Your task to perform on an android device: toggle priority inbox in the gmail app Image 0: 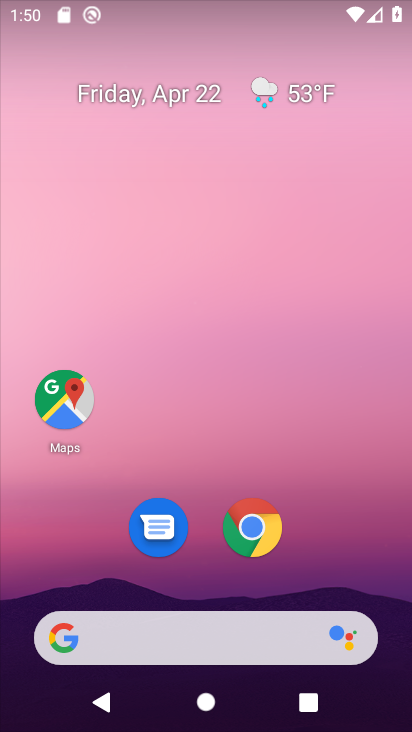
Step 0: drag from (346, 582) to (344, 11)
Your task to perform on an android device: toggle priority inbox in the gmail app Image 1: 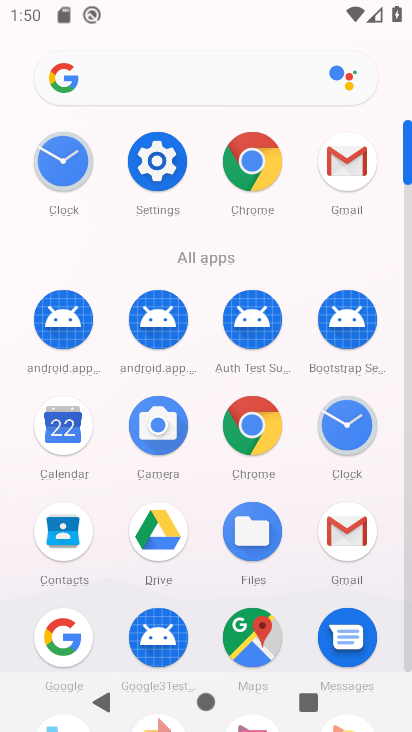
Step 1: click (345, 532)
Your task to perform on an android device: toggle priority inbox in the gmail app Image 2: 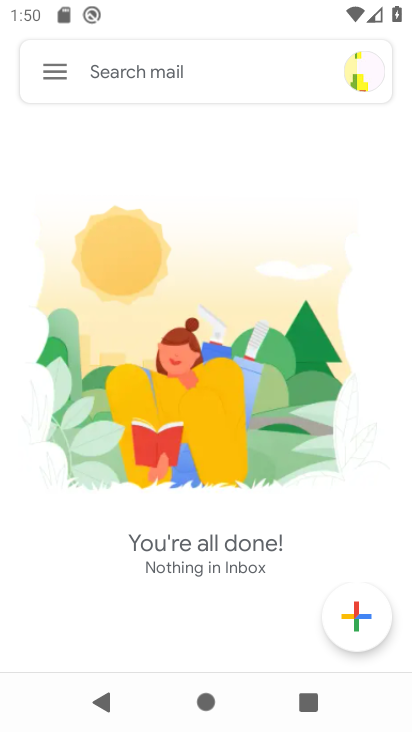
Step 2: click (32, 78)
Your task to perform on an android device: toggle priority inbox in the gmail app Image 3: 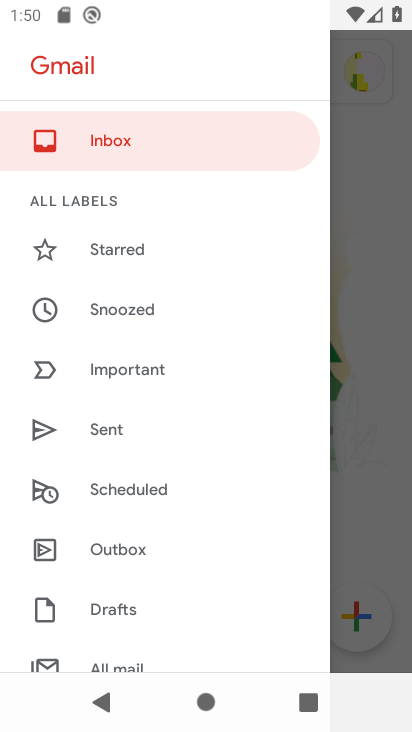
Step 3: drag from (102, 596) to (133, 190)
Your task to perform on an android device: toggle priority inbox in the gmail app Image 4: 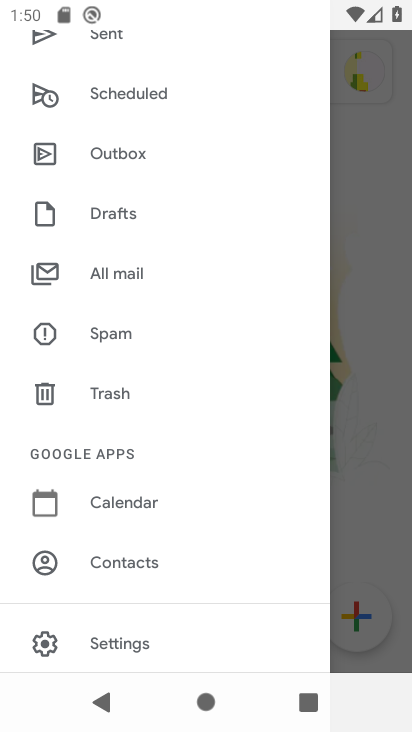
Step 4: click (129, 639)
Your task to perform on an android device: toggle priority inbox in the gmail app Image 5: 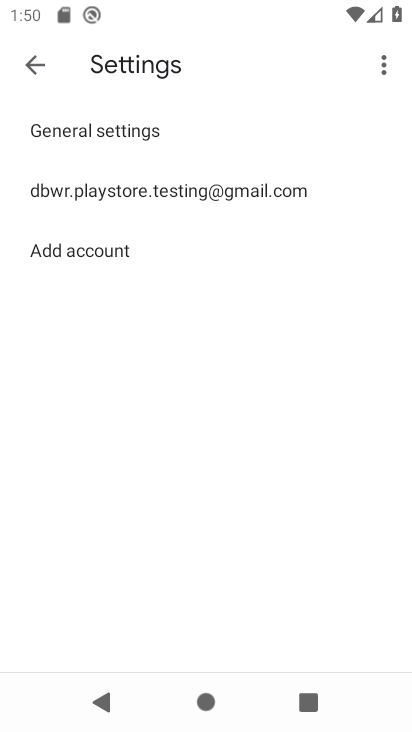
Step 5: click (139, 192)
Your task to perform on an android device: toggle priority inbox in the gmail app Image 6: 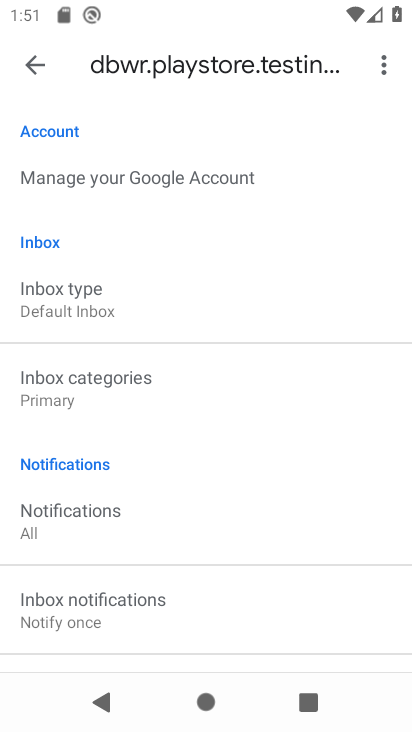
Step 6: drag from (188, 576) to (181, 409)
Your task to perform on an android device: toggle priority inbox in the gmail app Image 7: 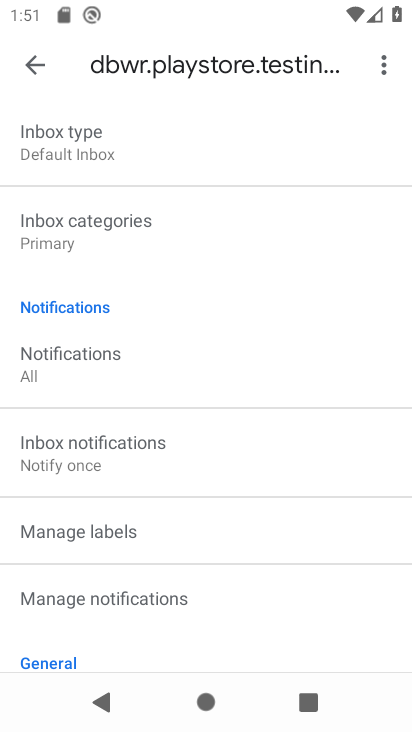
Step 7: click (149, 153)
Your task to perform on an android device: toggle priority inbox in the gmail app Image 8: 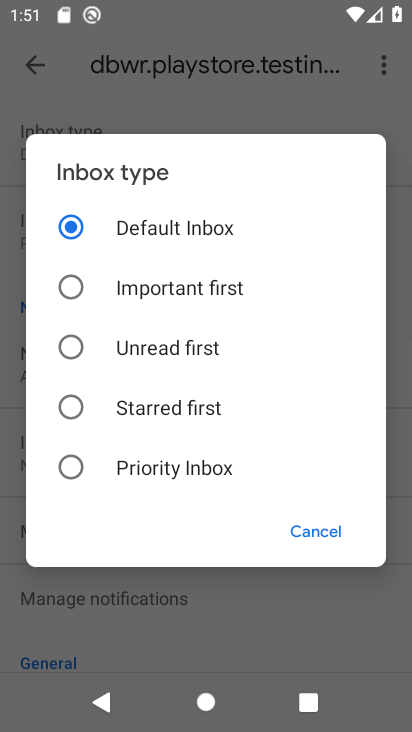
Step 8: click (138, 462)
Your task to perform on an android device: toggle priority inbox in the gmail app Image 9: 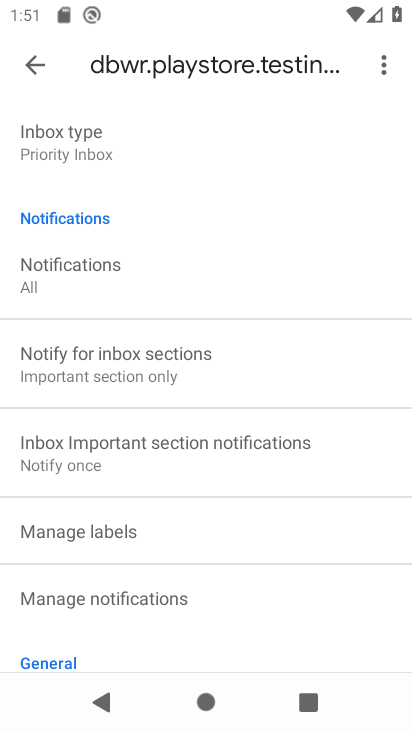
Step 9: task complete